Your task to perform on an android device: check storage Image 0: 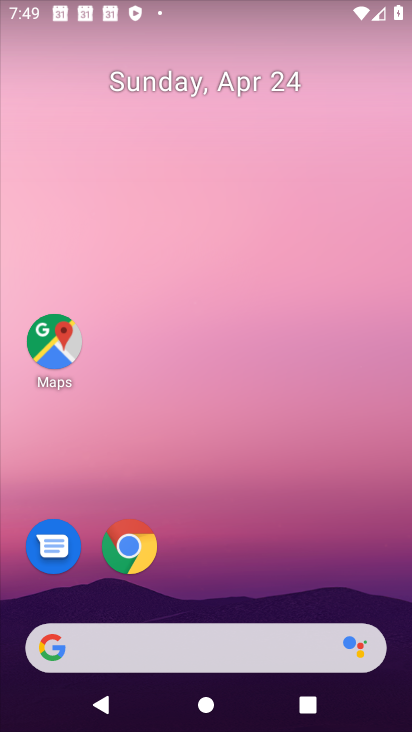
Step 0: drag from (241, 577) to (265, 1)
Your task to perform on an android device: check storage Image 1: 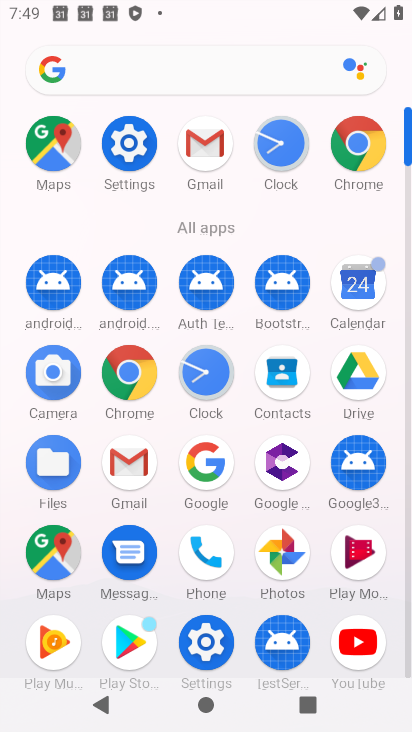
Step 1: click (211, 669)
Your task to perform on an android device: check storage Image 2: 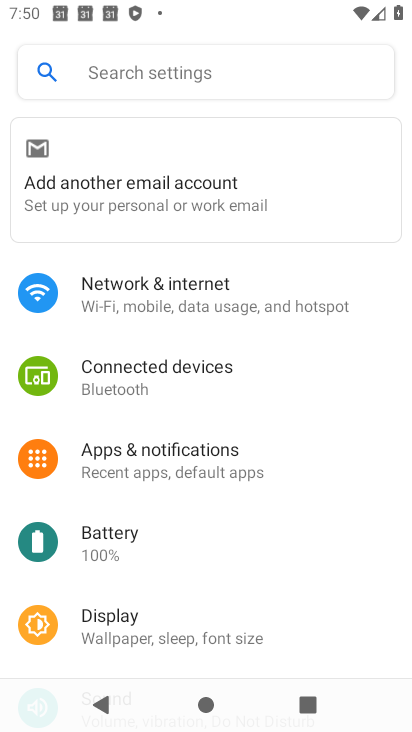
Step 2: drag from (197, 562) to (188, 314)
Your task to perform on an android device: check storage Image 3: 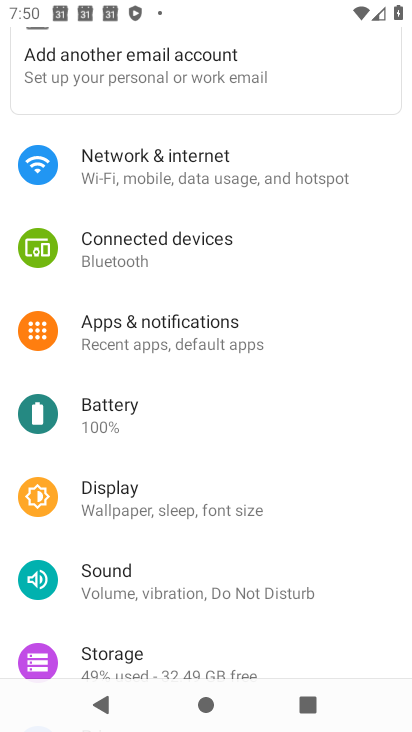
Step 3: click (158, 641)
Your task to perform on an android device: check storage Image 4: 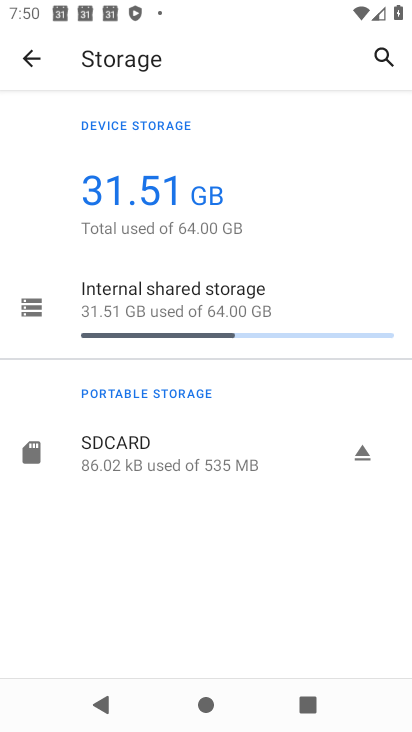
Step 4: task complete